Your task to perform on an android device: turn on location history Image 0: 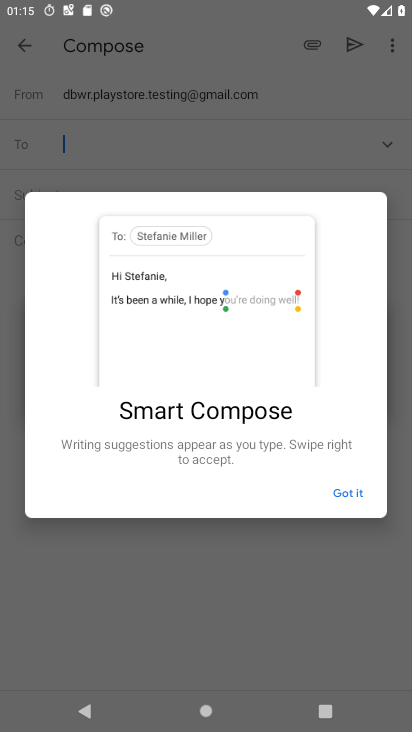
Step 0: press home button
Your task to perform on an android device: turn on location history Image 1: 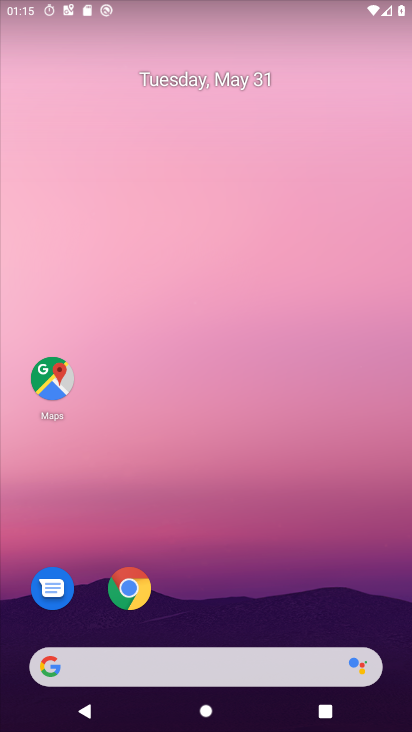
Step 1: drag from (293, 662) to (276, 198)
Your task to perform on an android device: turn on location history Image 2: 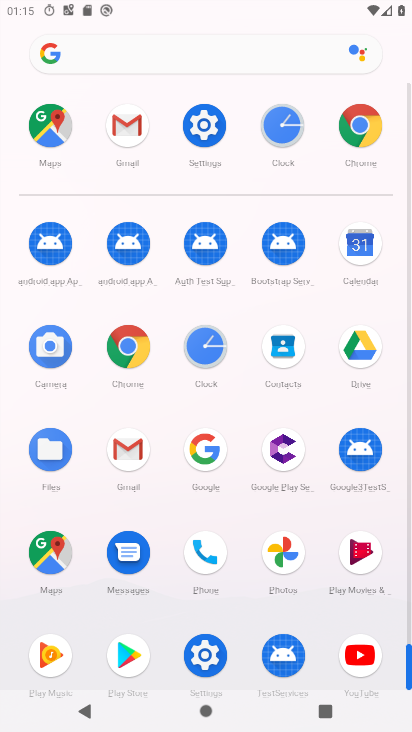
Step 2: click (202, 128)
Your task to perform on an android device: turn on location history Image 3: 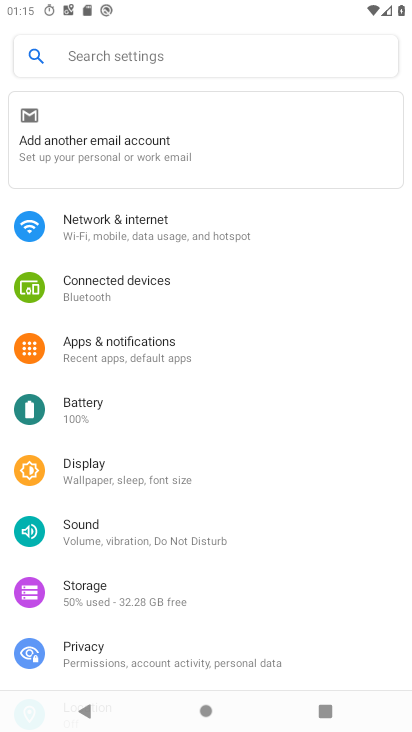
Step 3: drag from (129, 636) to (95, 293)
Your task to perform on an android device: turn on location history Image 4: 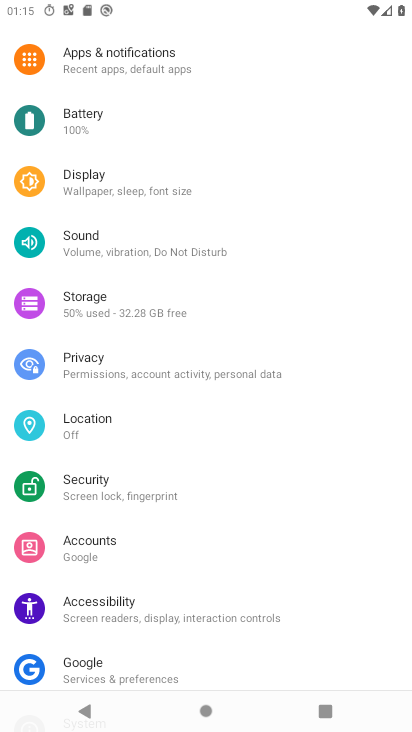
Step 4: click (115, 431)
Your task to perform on an android device: turn on location history Image 5: 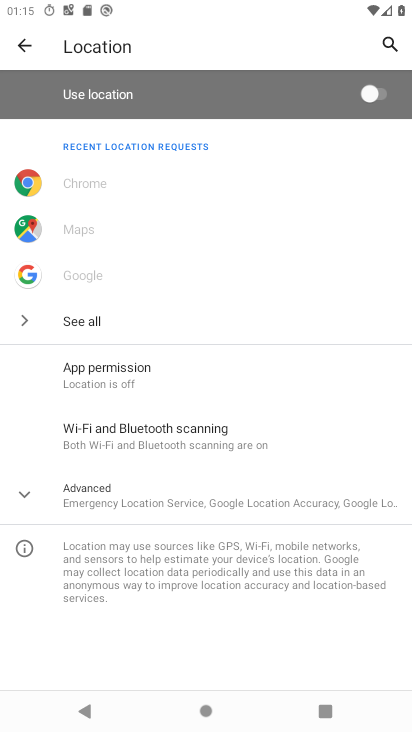
Step 5: click (101, 496)
Your task to perform on an android device: turn on location history Image 6: 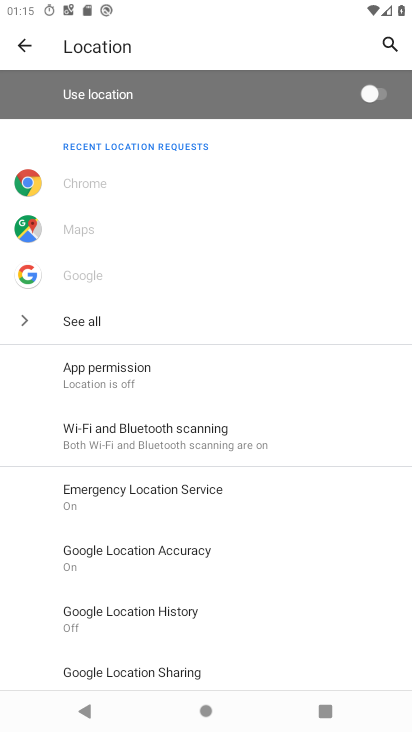
Step 6: click (137, 626)
Your task to perform on an android device: turn on location history Image 7: 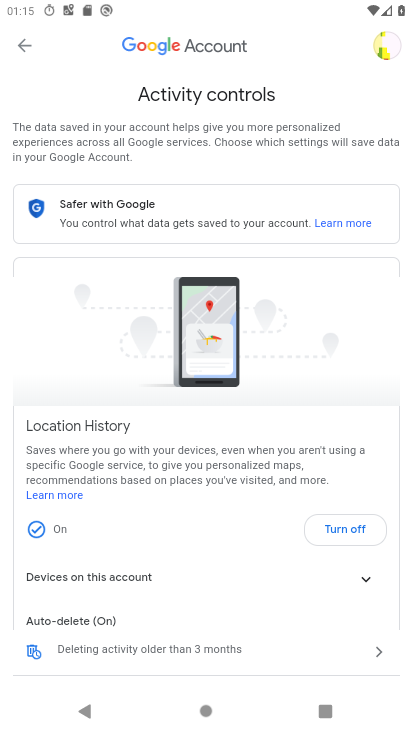
Step 7: task complete